Your task to perform on an android device: Search for seafood restaurants on Google Maps Image 0: 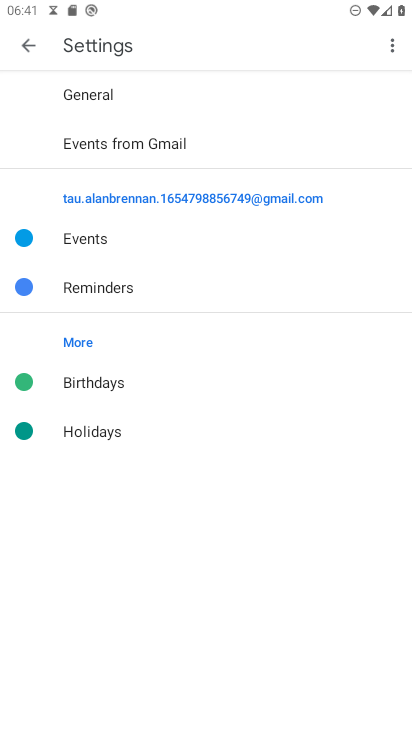
Step 0: press home button
Your task to perform on an android device: Search for seafood restaurants on Google Maps Image 1: 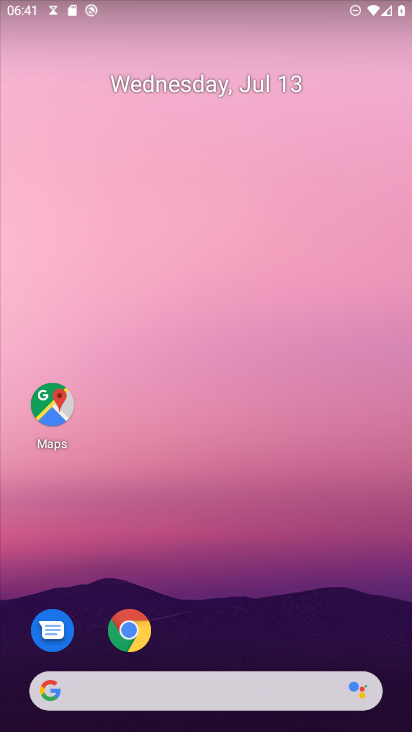
Step 1: drag from (206, 667) to (242, 13)
Your task to perform on an android device: Search for seafood restaurants on Google Maps Image 2: 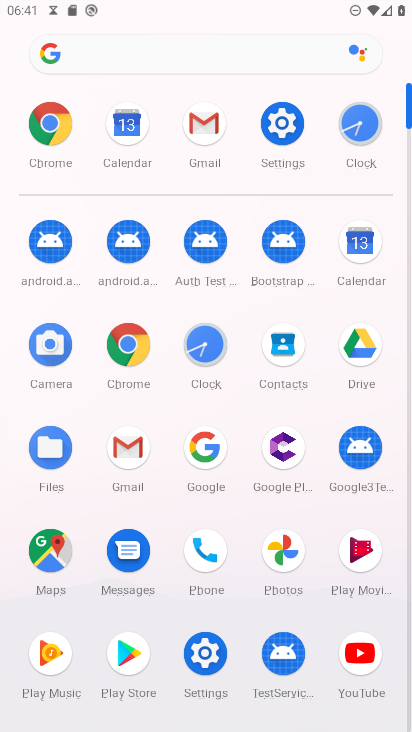
Step 2: click (48, 547)
Your task to perform on an android device: Search for seafood restaurants on Google Maps Image 3: 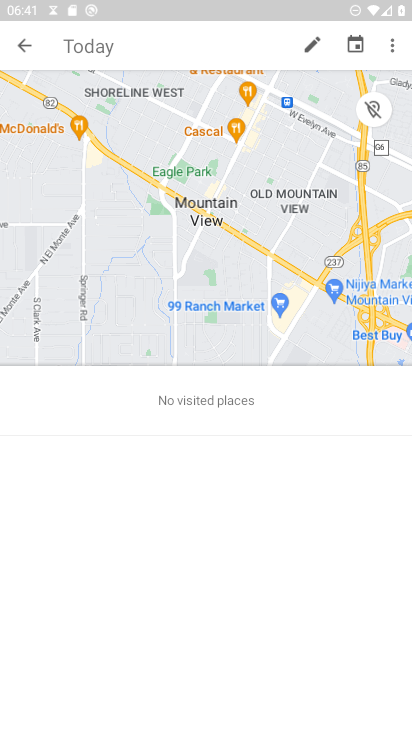
Step 3: press back button
Your task to perform on an android device: Search for seafood restaurants on Google Maps Image 4: 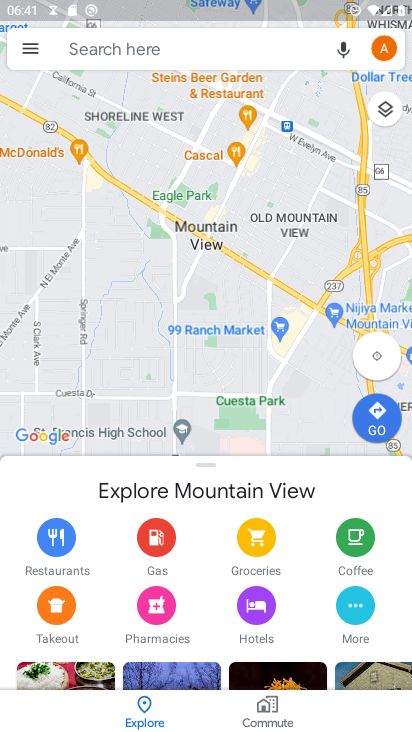
Step 4: click (227, 33)
Your task to perform on an android device: Search for seafood restaurants on Google Maps Image 5: 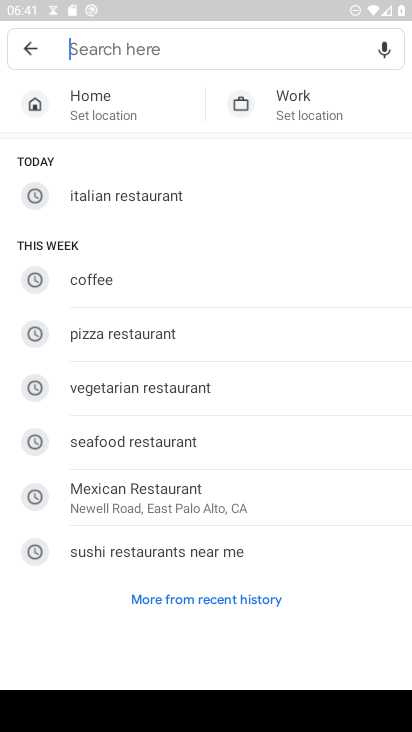
Step 5: click (206, 431)
Your task to perform on an android device: Search for seafood restaurants on Google Maps Image 6: 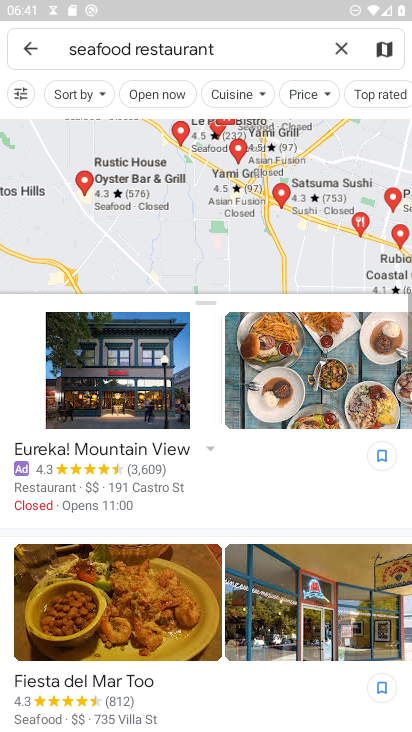
Step 6: task complete